Your task to perform on an android device: Open Chrome and go to settings Image 0: 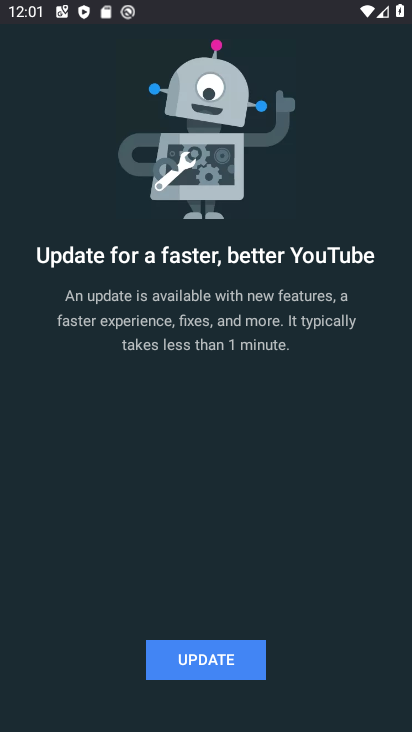
Step 0: press home button
Your task to perform on an android device: Open Chrome and go to settings Image 1: 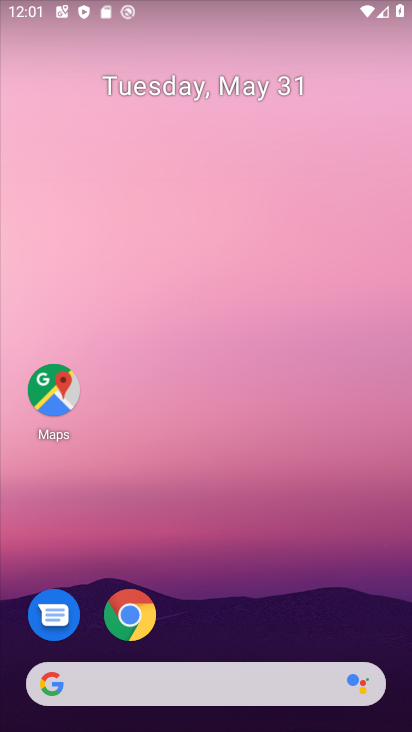
Step 1: click (135, 610)
Your task to perform on an android device: Open Chrome and go to settings Image 2: 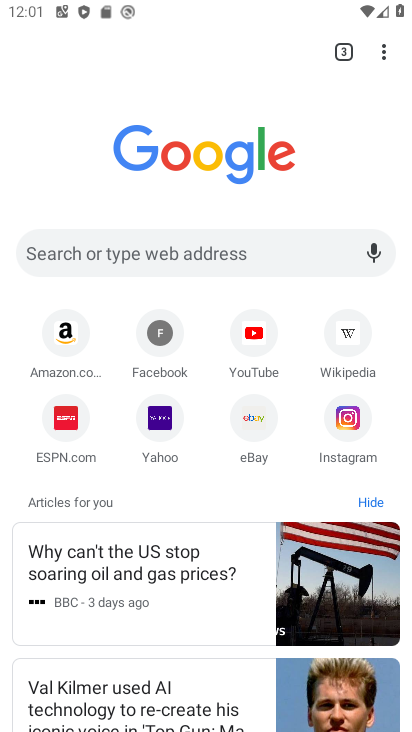
Step 2: click (381, 56)
Your task to perform on an android device: Open Chrome and go to settings Image 3: 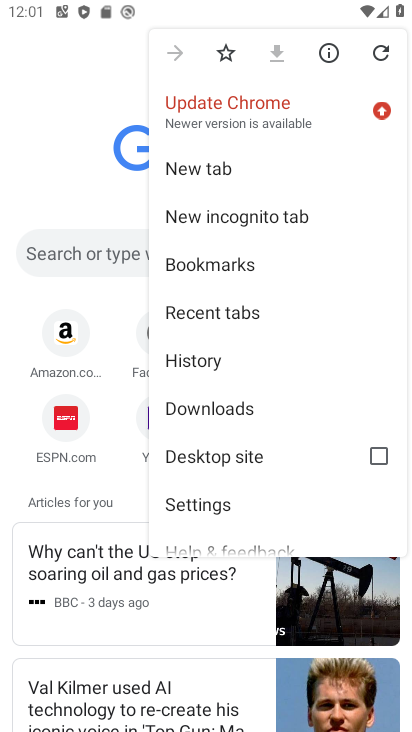
Step 3: click (207, 500)
Your task to perform on an android device: Open Chrome and go to settings Image 4: 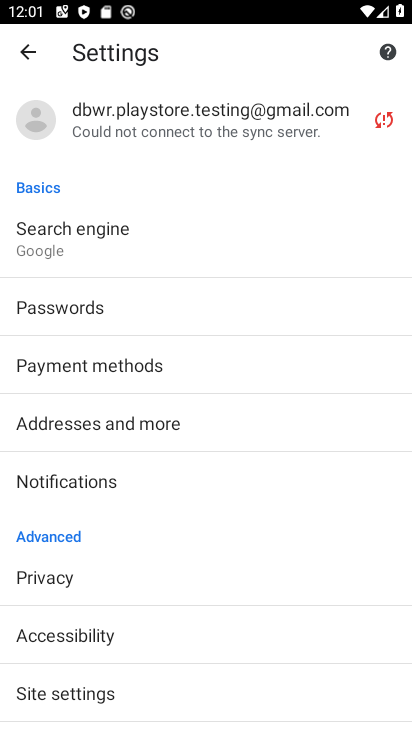
Step 4: task complete